Your task to perform on an android device: open a bookmark in the chrome app Image 0: 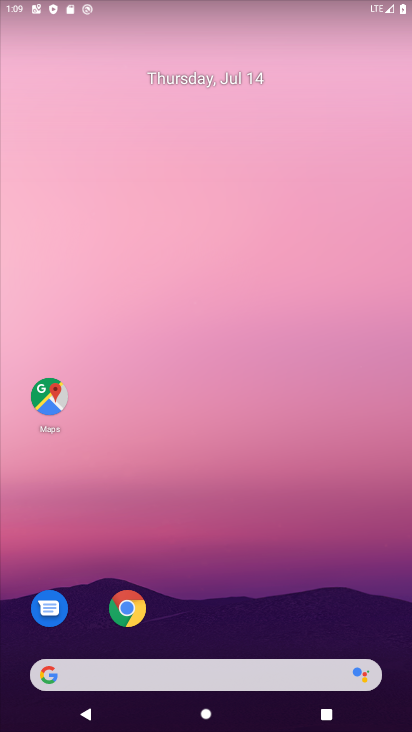
Step 0: click (123, 608)
Your task to perform on an android device: open a bookmark in the chrome app Image 1: 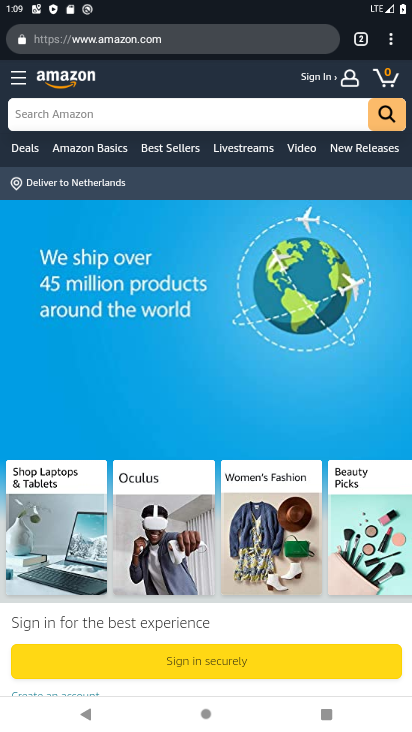
Step 1: click (389, 40)
Your task to perform on an android device: open a bookmark in the chrome app Image 2: 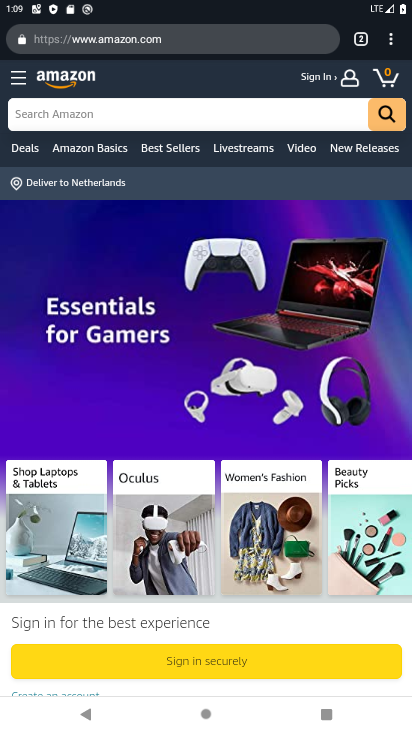
Step 2: click (392, 49)
Your task to perform on an android device: open a bookmark in the chrome app Image 3: 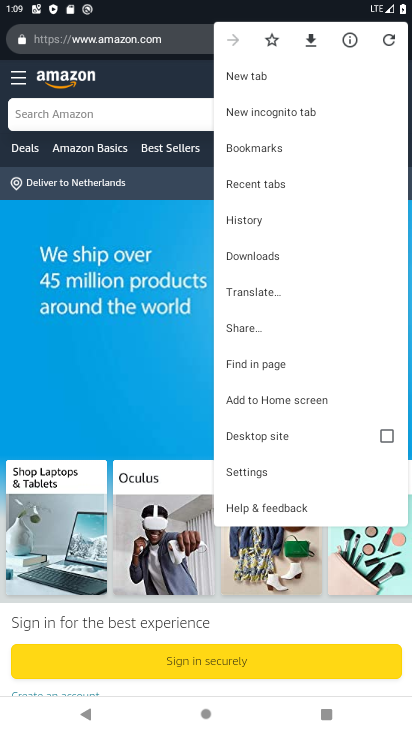
Step 3: click (271, 142)
Your task to perform on an android device: open a bookmark in the chrome app Image 4: 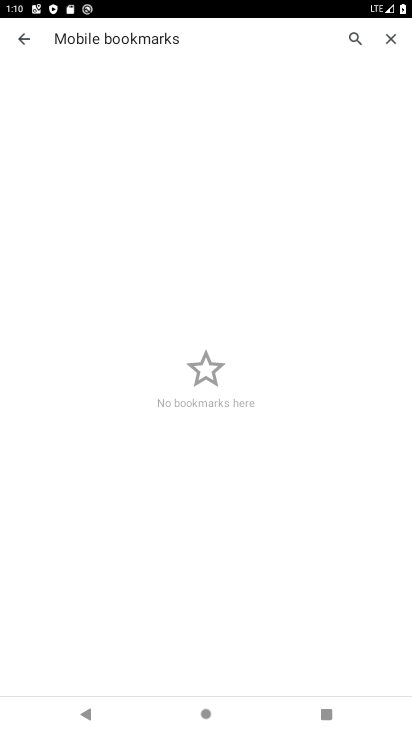
Step 4: task complete